Your task to perform on an android device: add a label to a message in the gmail app Image 0: 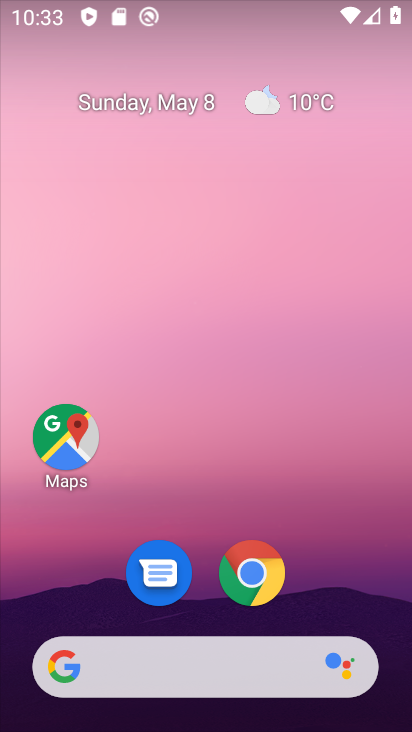
Step 0: drag from (383, 581) to (396, 32)
Your task to perform on an android device: add a label to a message in the gmail app Image 1: 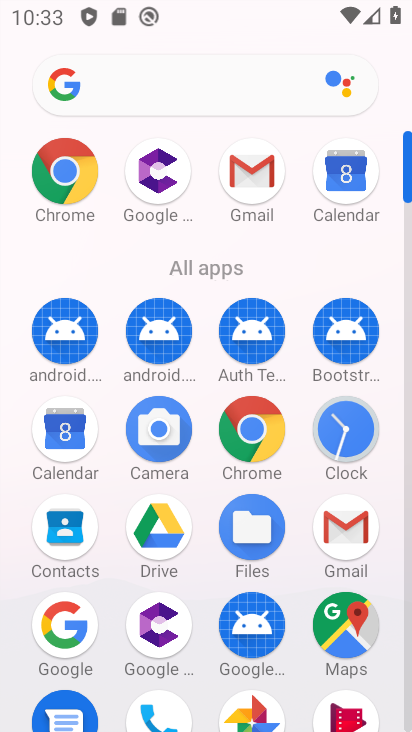
Step 1: click (360, 526)
Your task to perform on an android device: add a label to a message in the gmail app Image 2: 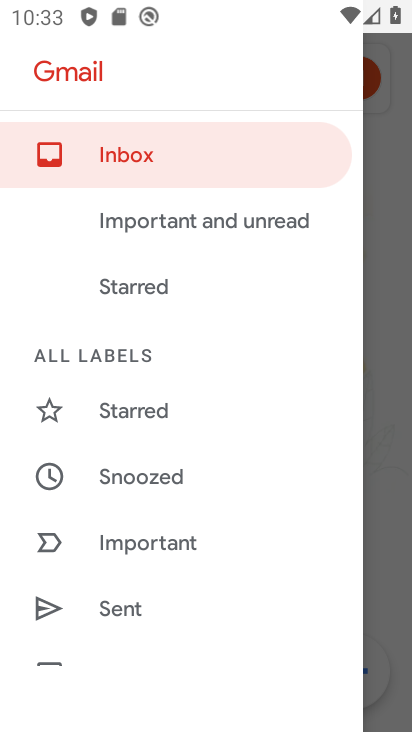
Step 2: task complete